Your task to perform on an android device: turn off data saver in the chrome app Image 0: 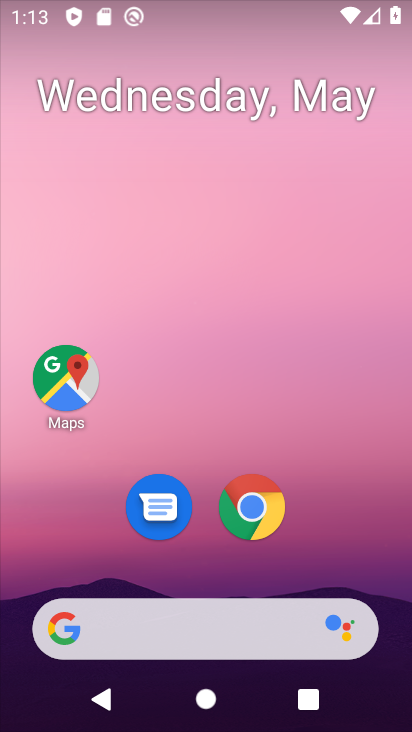
Step 0: drag from (366, 572) to (274, 190)
Your task to perform on an android device: turn off data saver in the chrome app Image 1: 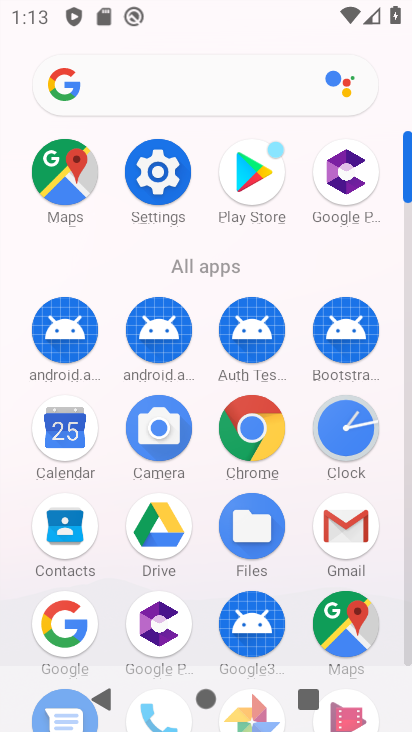
Step 1: click (265, 422)
Your task to perform on an android device: turn off data saver in the chrome app Image 2: 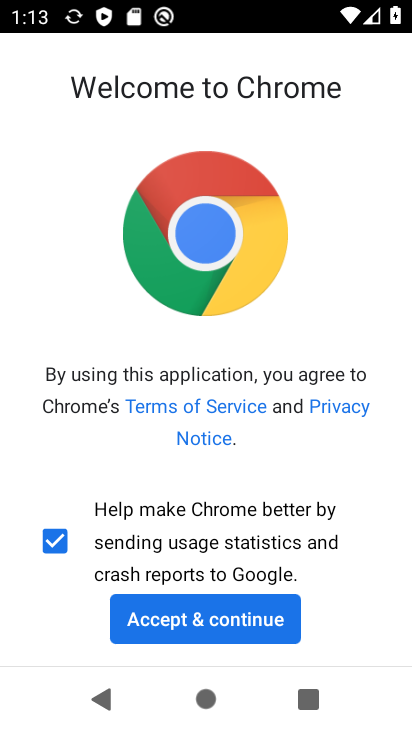
Step 2: click (269, 610)
Your task to perform on an android device: turn off data saver in the chrome app Image 3: 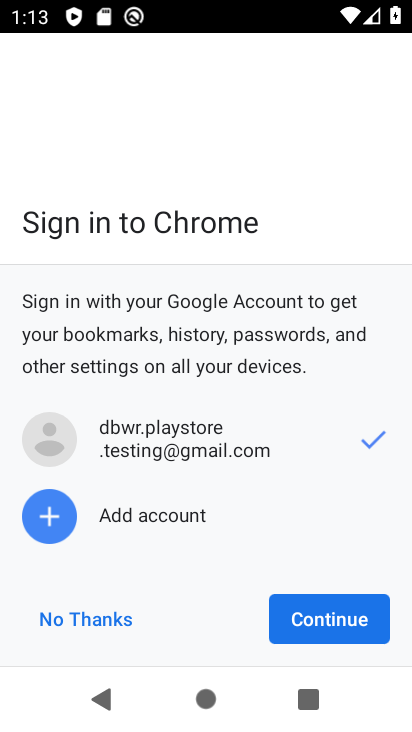
Step 3: click (306, 622)
Your task to perform on an android device: turn off data saver in the chrome app Image 4: 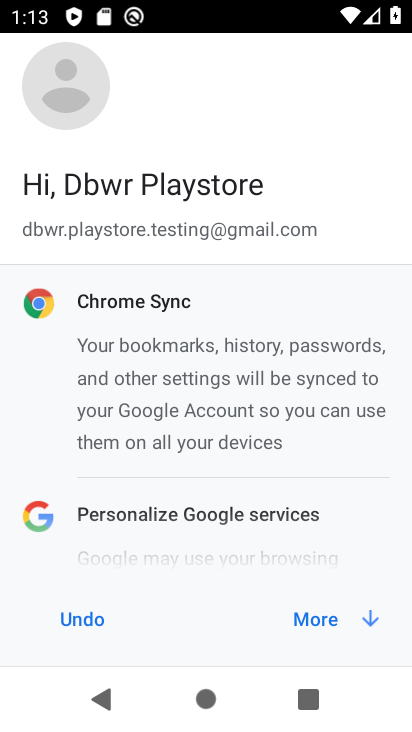
Step 4: click (306, 622)
Your task to perform on an android device: turn off data saver in the chrome app Image 5: 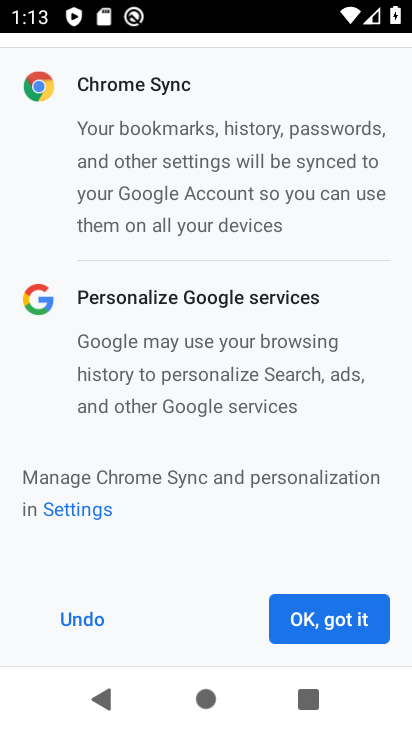
Step 5: click (306, 622)
Your task to perform on an android device: turn off data saver in the chrome app Image 6: 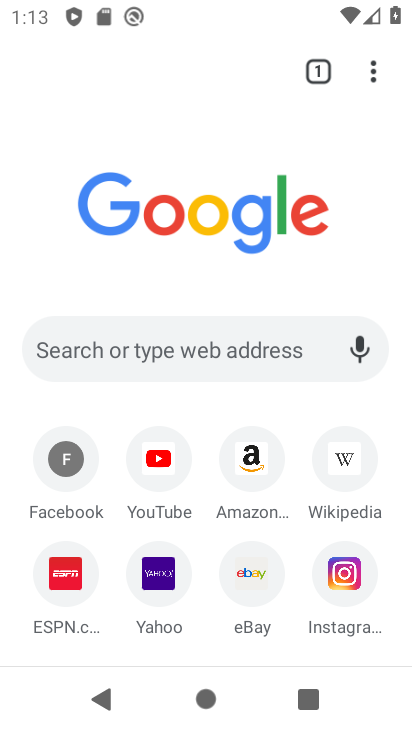
Step 6: click (379, 80)
Your task to perform on an android device: turn off data saver in the chrome app Image 7: 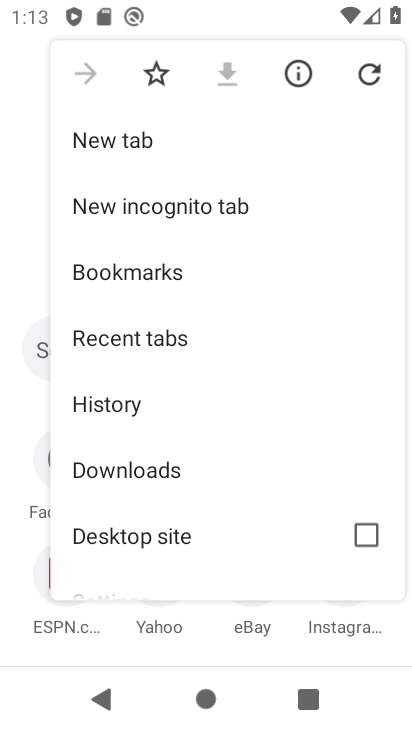
Step 7: drag from (222, 562) to (199, 171)
Your task to perform on an android device: turn off data saver in the chrome app Image 8: 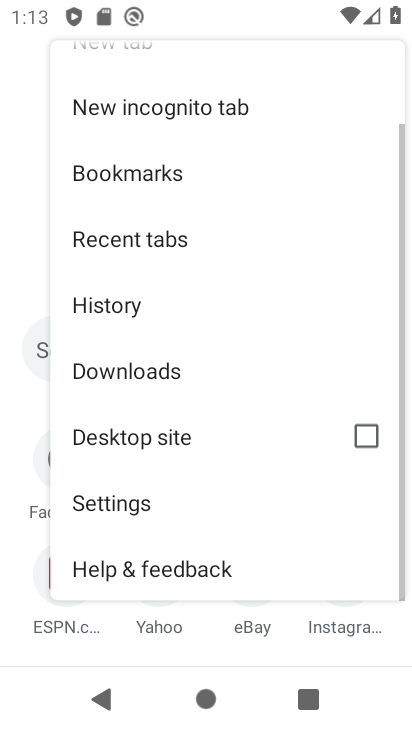
Step 8: click (206, 513)
Your task to perform on an android device: turn off data saver in the chrome app Image 9: 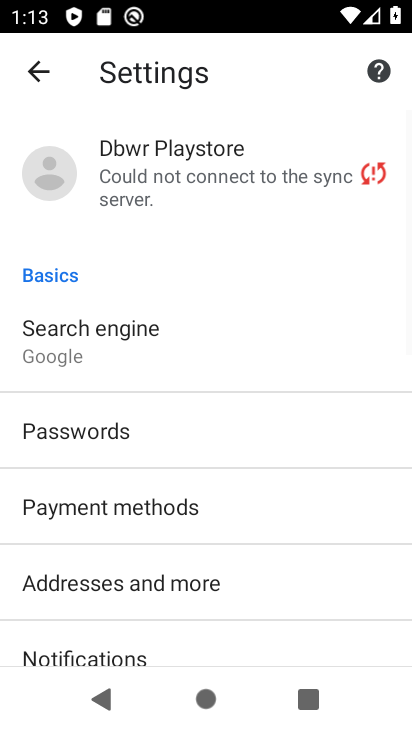
Step 9: drag from (239, 645) to (211, 236)
Your task to perform on an android device: turn off data saver in the chrome app Image 10: 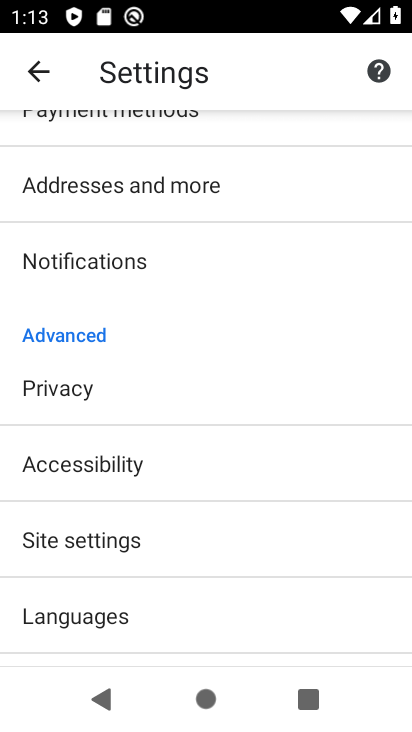
Step 10: drag from (215, 609) to (185, 432)
Your task to perform on an android device: turn off data saver in the chrome app Image 11: 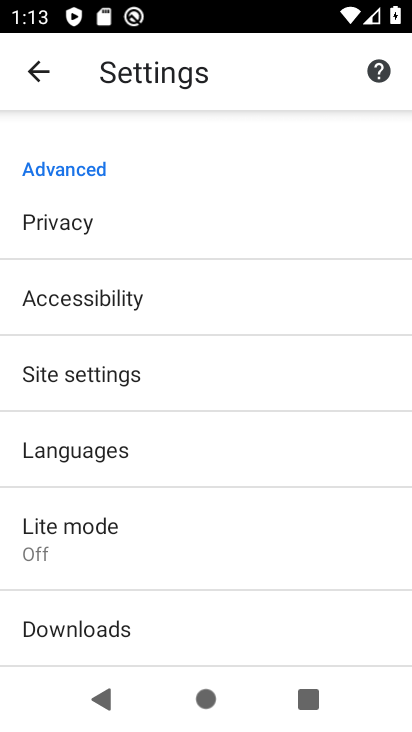
Step 11: click (164, 547)
Your task to perform on an android device: turn off data saver in the chrome app Image 12: 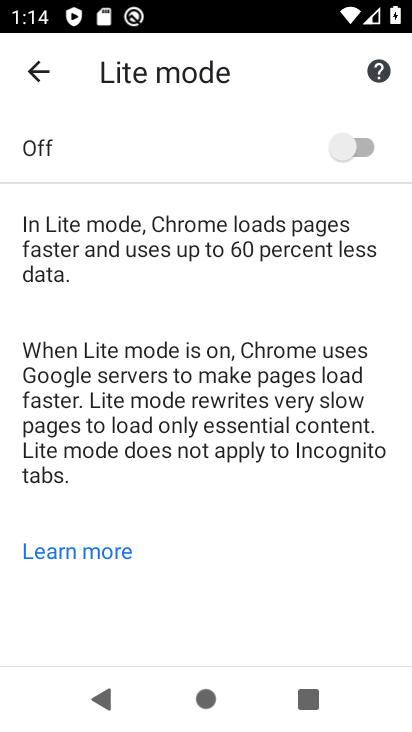
Step 12: task complete